Your task to perform on an android device: Open calendar and show me the second week of next month Image 0: 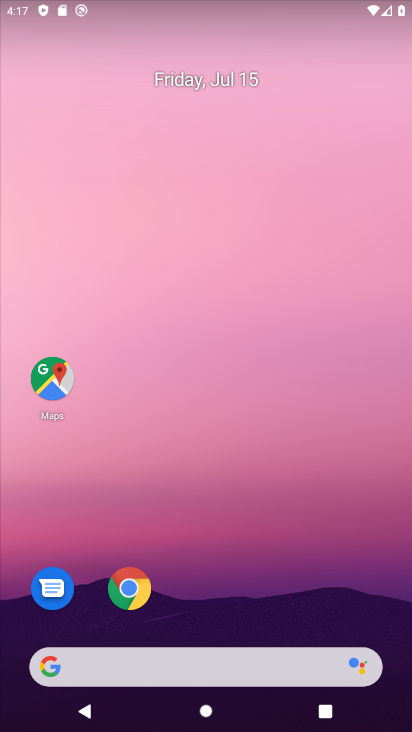
Step 0: drag from (129, 287) to (240, 80)
Your task to perform on an android device: Open calendar and show me the second week of next month Image 1: 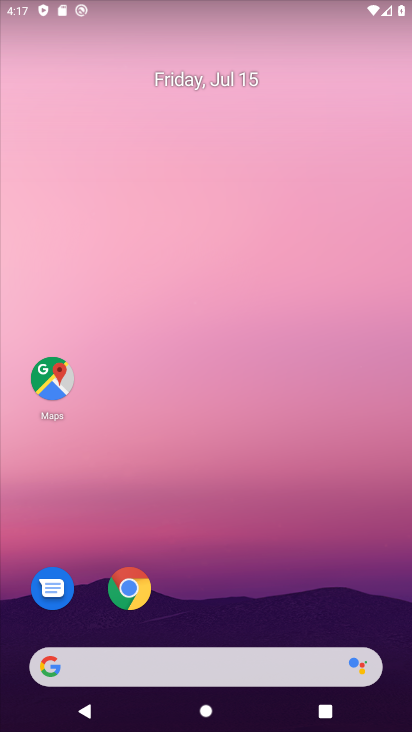
Step 1: drag from (55, 575) to (266, 132)
Your task to perform on an android device: Open calendar and show me the second week of next month Image 2: 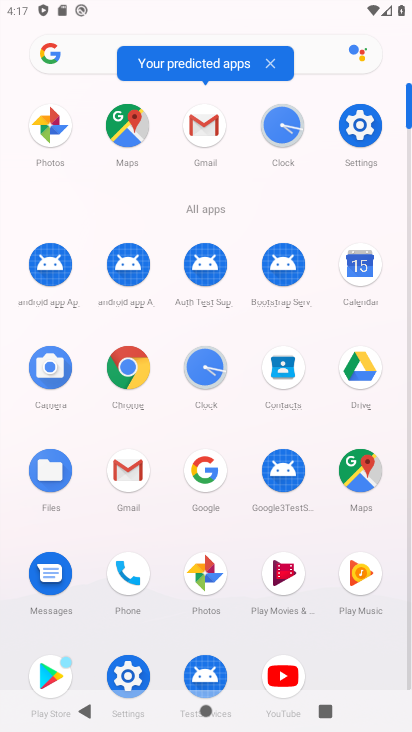
Step 2: click (349, 267)
Your task to perform on an android device: Open calendar and show me the second week of next month Image 3: 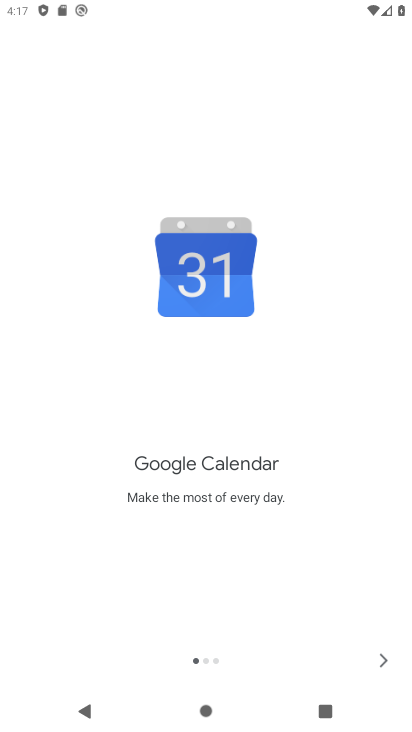
Step 3: click (382, 655)
Your task to perform on an android device: Open calendar and show me the second week of next month Image 4: 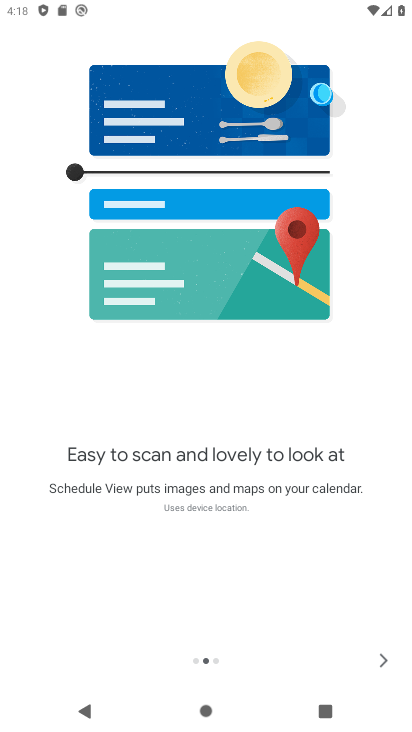
Step 4: click (374, 661)
Your task to perform on an android device: Open calendar and show me the second week of next month Image 5: 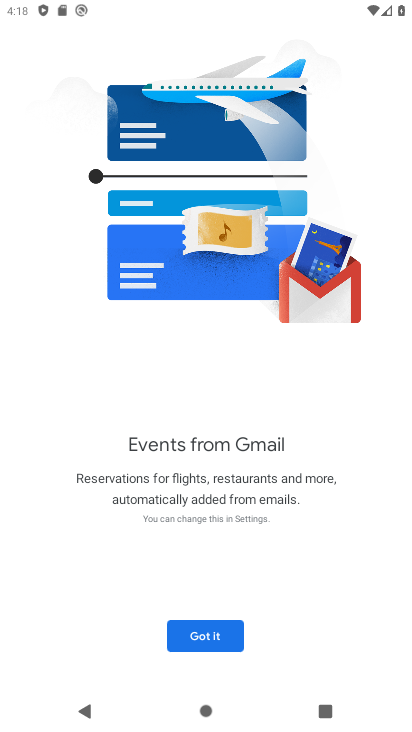
Step 5: click (188, 636)
Your task to perform on an android device: Open calendar and show me the second week of next month Image 6: 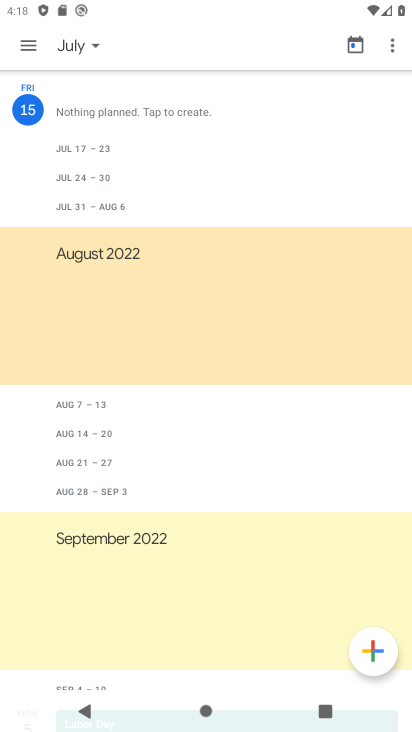
Step 6: click (85, 51)
Your task to perform on an android device: Open calendar and show me the second week of next month Image 7: 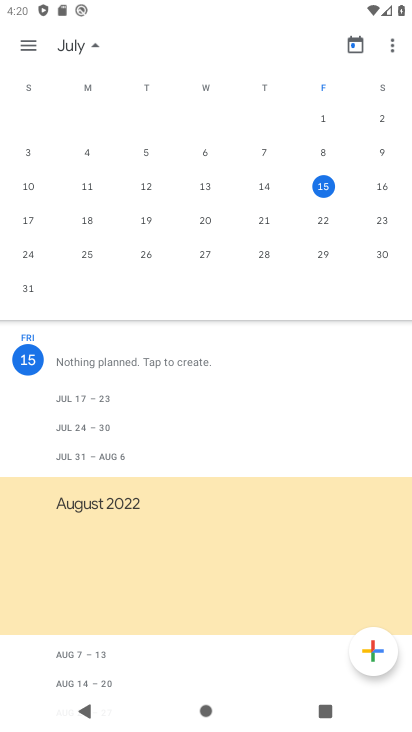
Step 7: task complete